Your task to perform on an android device: toggle priority inbox in the gmail app Image 0: 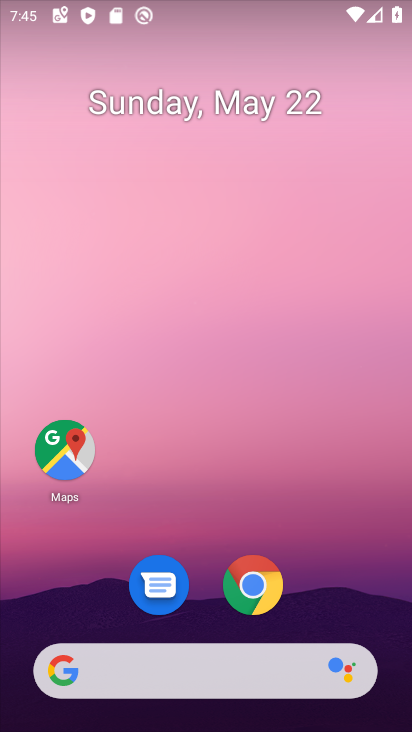
Step 0: drag from (205, 523) to (250, 31)
Your task to perform on an android device: toggle priority inbox in the gmail app Image 1: 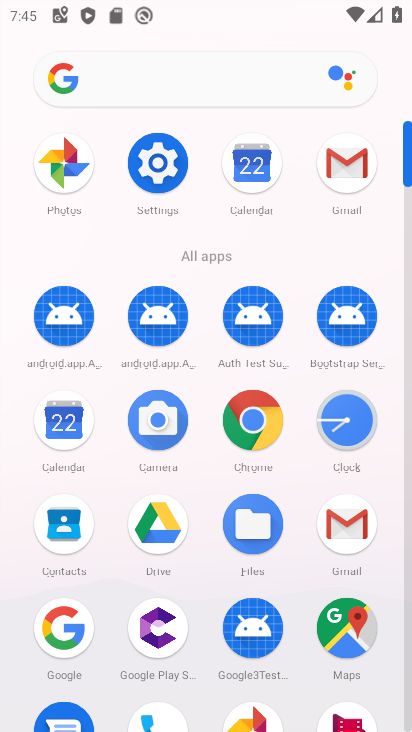
Step 1: click (342, 161)
Your task to perform on an android device: toggle priority inbox in the gmail app Image 2: 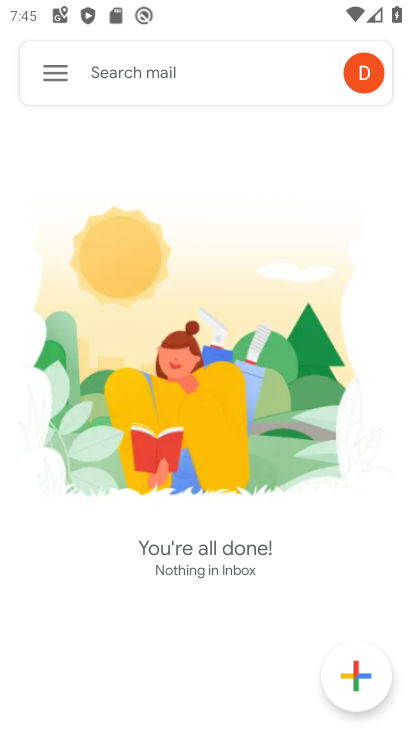
Step 2: click (52, 72)
Your task to perform on an android device: toggle priority inbox in the gmail app Image 3: 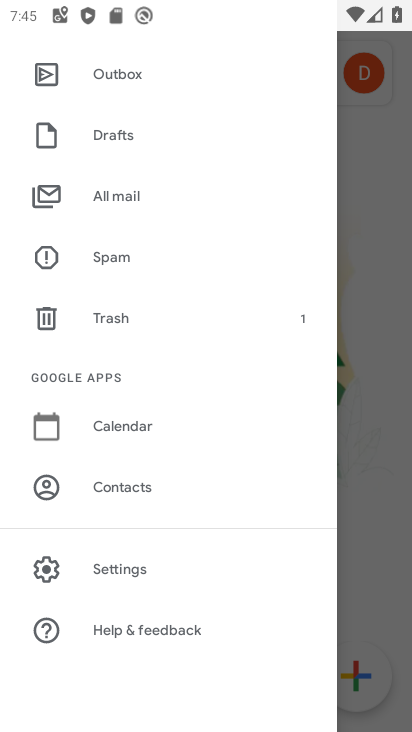
Step 3: click (135, 572)
Your task to perform on an android device: toggle priority inbox in the gmail app Image 4: 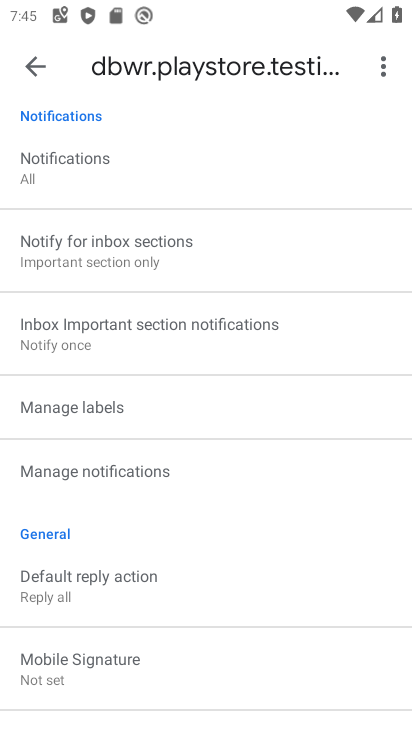
Step 4: drag from (268, 255) to (239, 627)
Your task to perform on an android device: toggle priority inbox in the gmail app Image 5: 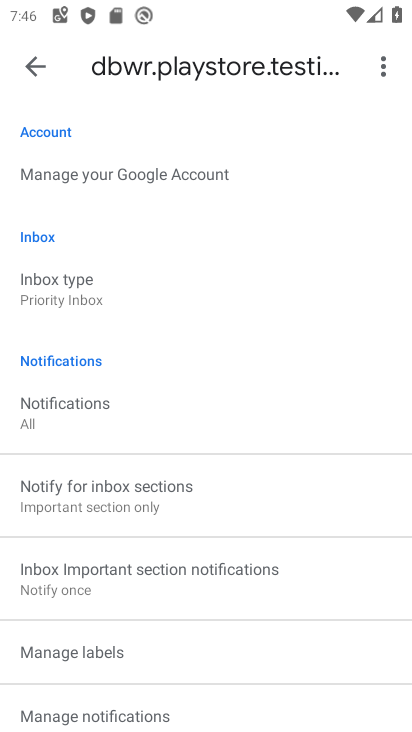
Step 5: click (72, 272)
Your task to perform on an android device: toggle priority inbox in the gmail app Image 6: 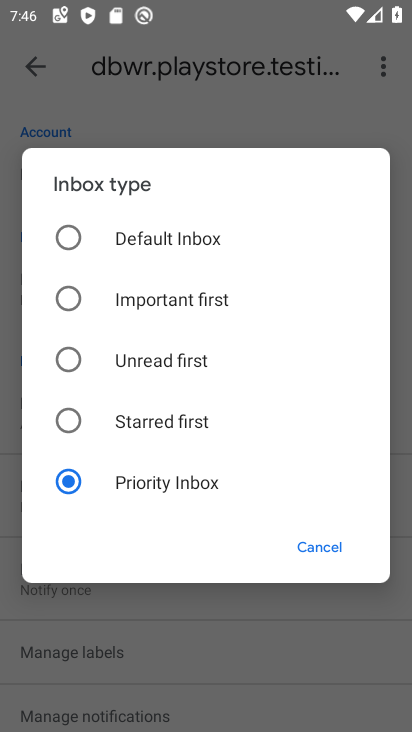
Step 6: click (62, 216)
Your task to perform on an android device: toggle priority inbox in the gmail app Image 7: 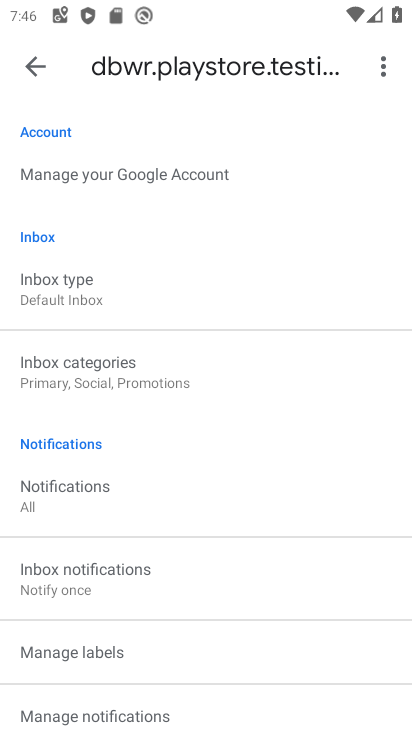
Step 7: task complete